Your task to perform on an android device: Go to accessibility settings Image 0: 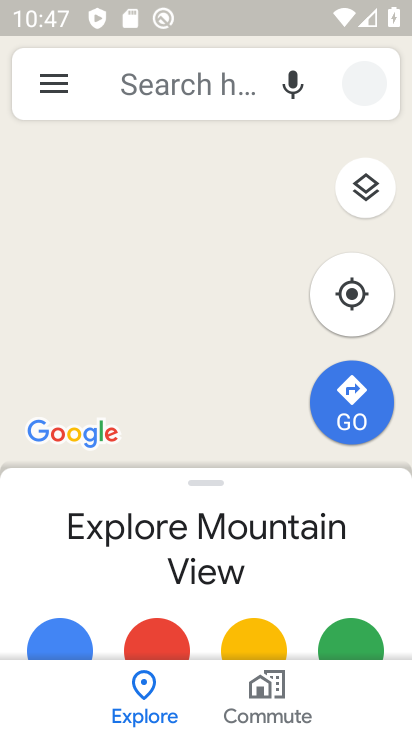
Step 0: press home button
Your task to perform on an android device: Go to accessibility settings Image 1: 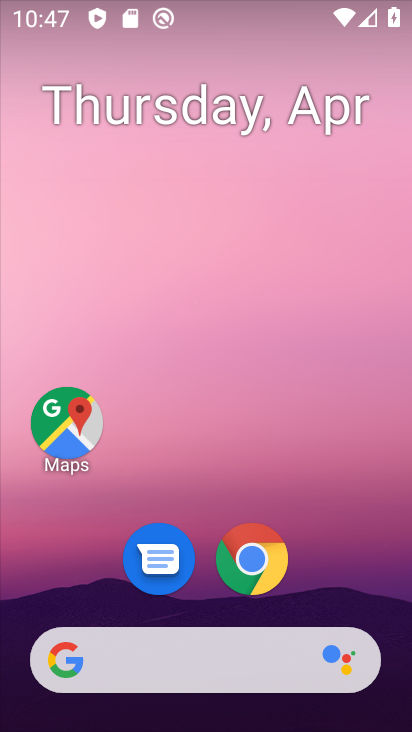
Step 1: drag from (270, 708) to (240, 215)
Your task to perform on an android device: Go to accessibility settings Image 2: 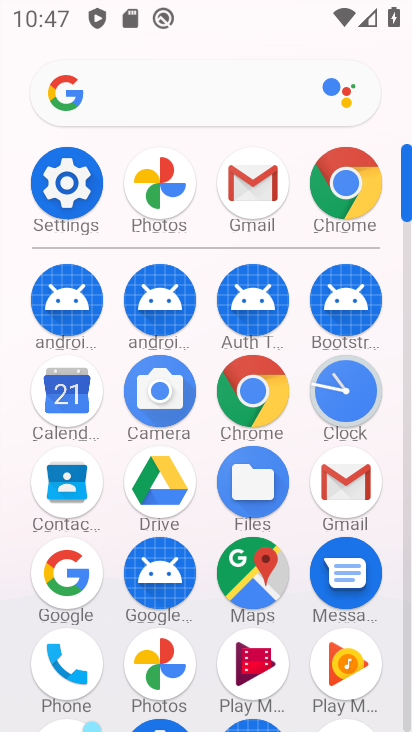
Step 2: click (75, 182)
Your task to perform on an android device: Go to accessibility settings Image 3: 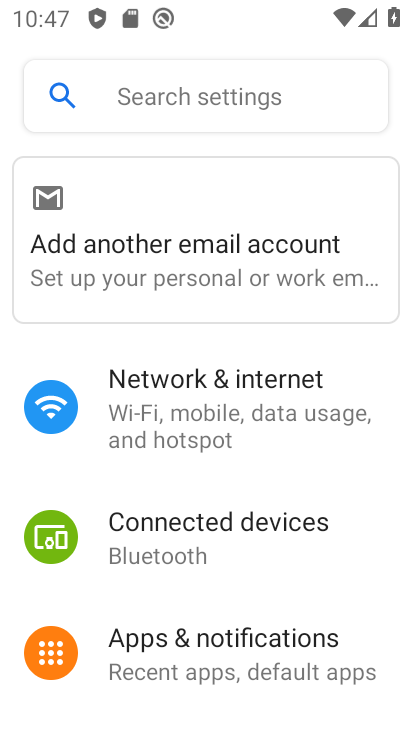
Step 3: drag from (184, 69) to (176, 115)
Your task to perform on an android device: Go to accessibility settings Image 4: 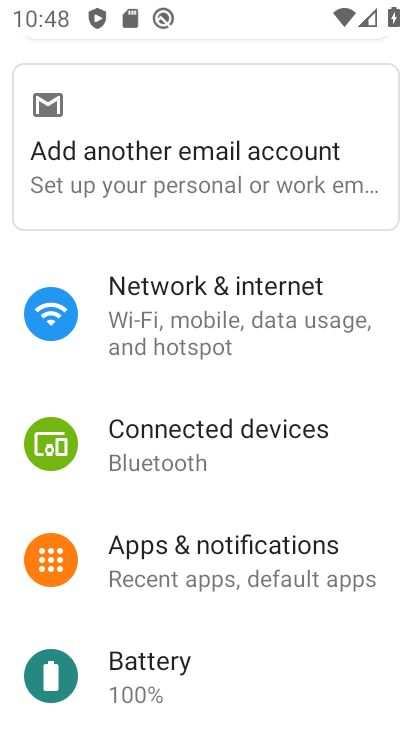
Step 4: drag from (243, 303) to (274, 410)
Your task to perform on an android device: Go to accessibility settings Image 5: 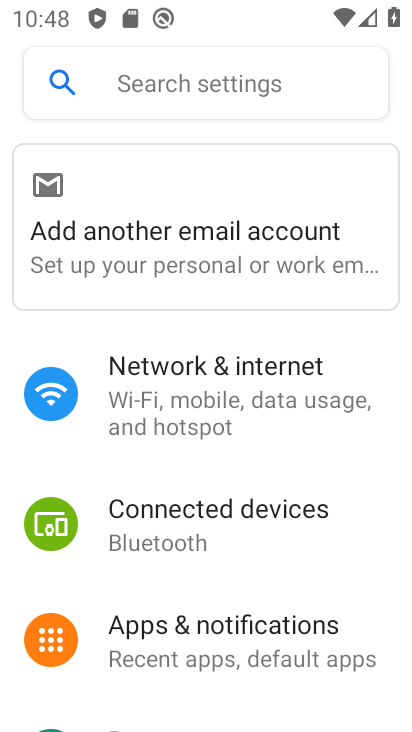
Step 5: click (207, 94)
Your task to perform on an android device: Go to accessibility settings Image 6: 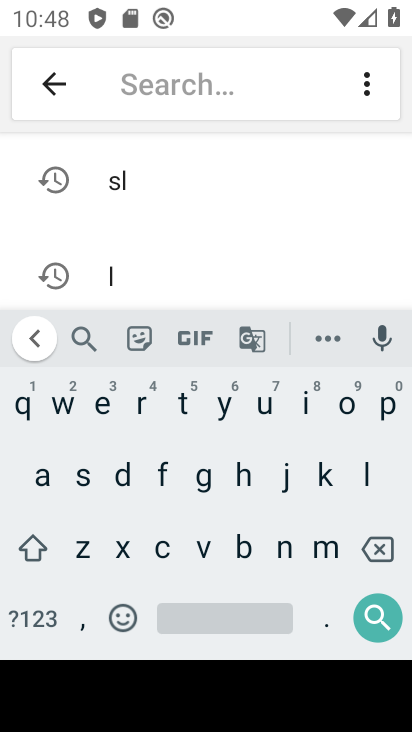
Step 6: click (37, 471)
Your task to perform on an android device: Go to accessibility settings Image 7: 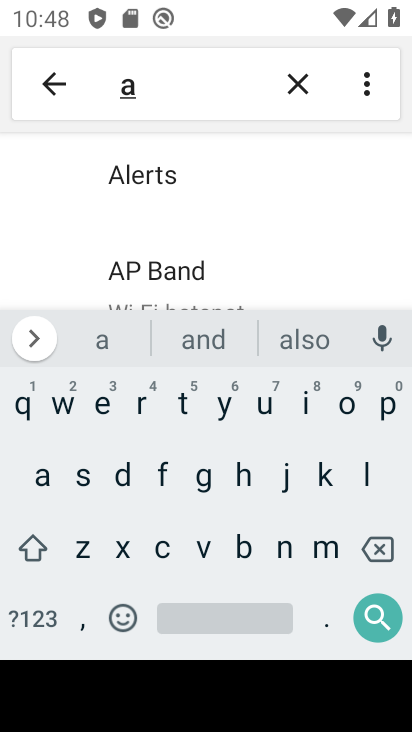
Step 7: click (162, 551)
Your task to perform on an android device: Go to accessibility settings Image 8: 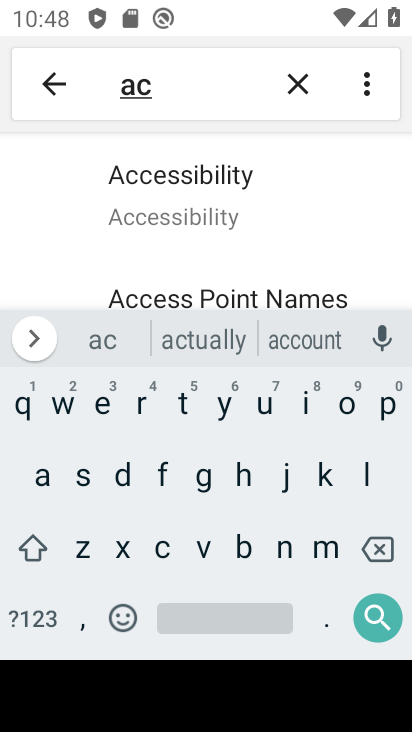
Step 8: click (213, 190)
Your task to perform on an android device: Go to accessibility settings Image 9: 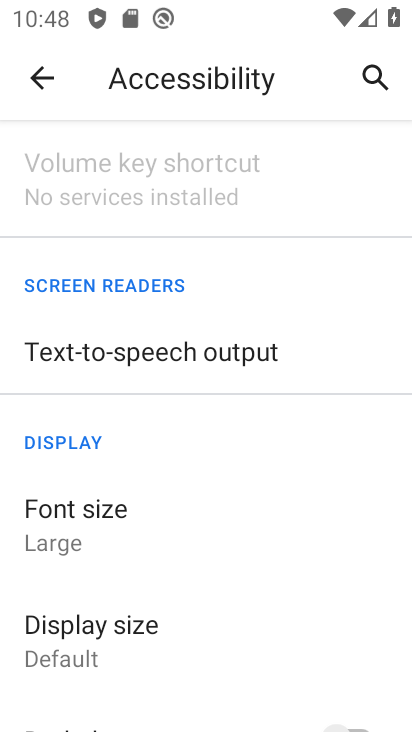
Step 9: task complete